Your task to perform on an android device: Open the web browser Image 0: 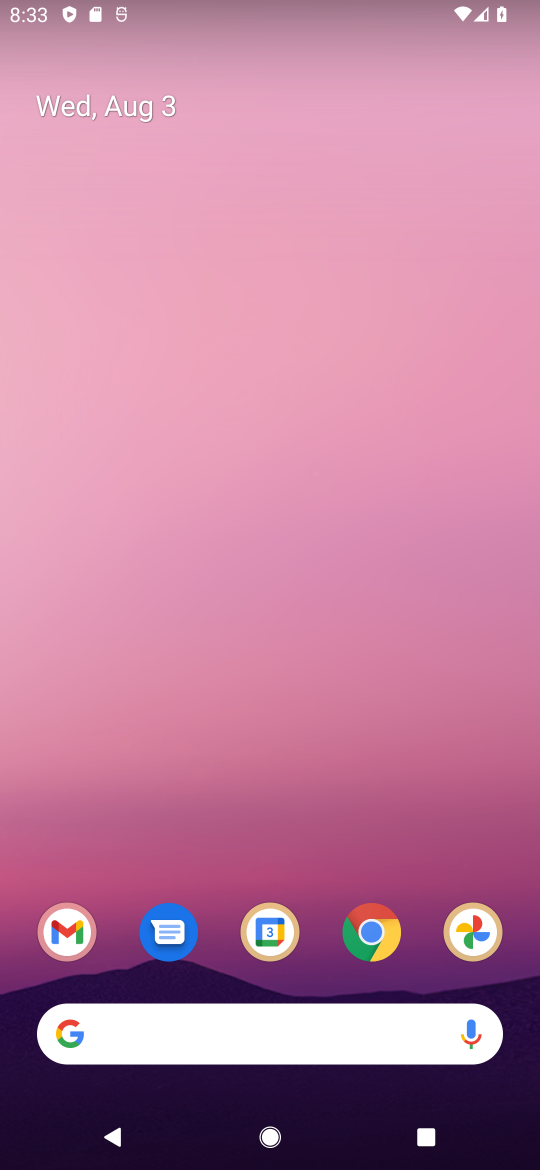
Step 0: press home button
Your task to perform on an android device: Open the web browser Image 1: 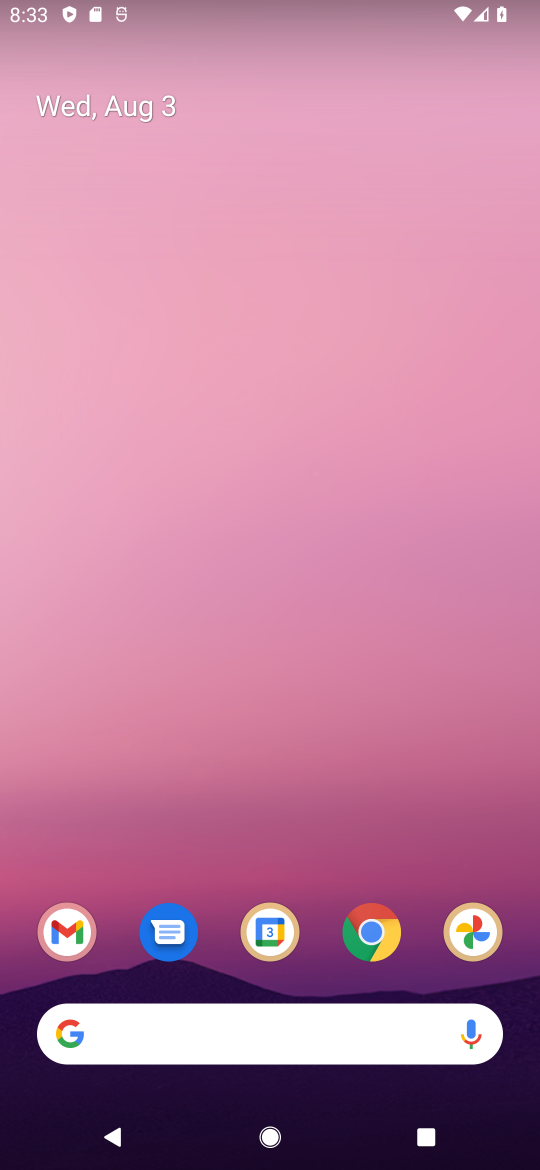
Step 1: click (368, 940)
Your task to perform on an android device: Open the web browser Image 2: 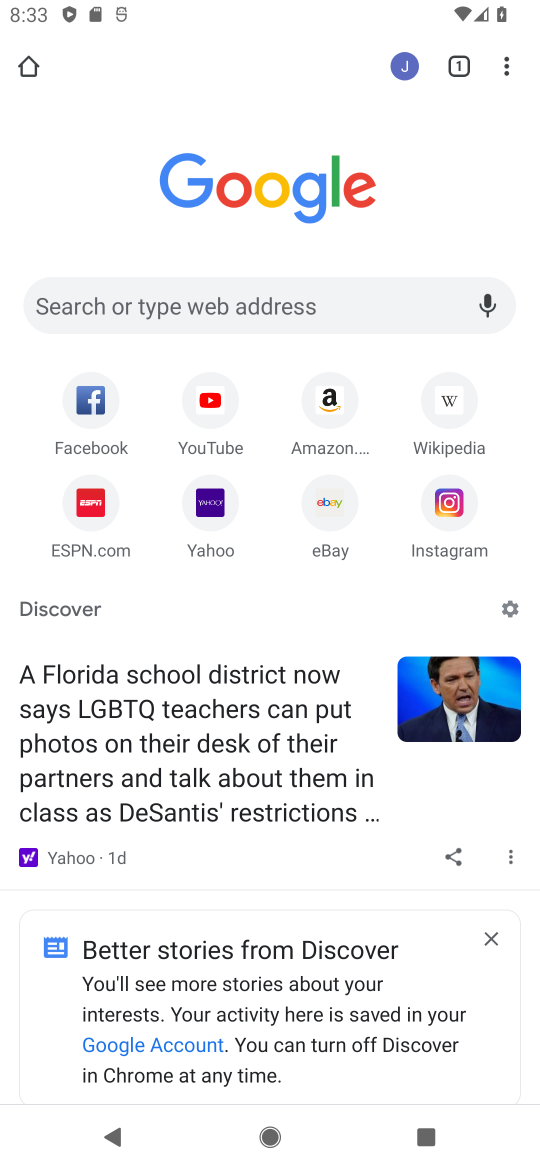
Step 2: task complete